Your task to perform on an android device: toggle pop-ups in chrome Image 0: 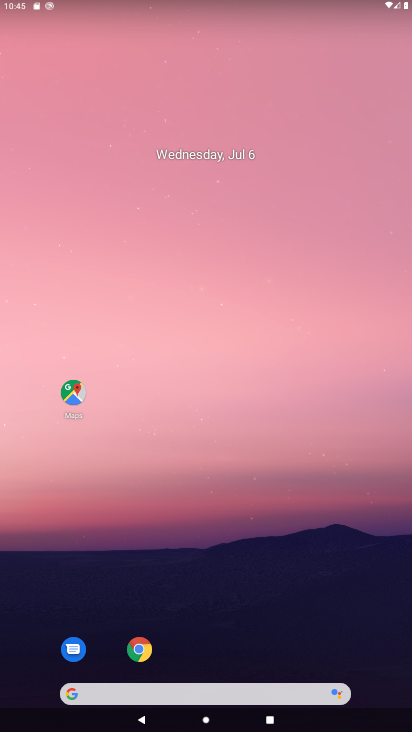
Step 0: drag from (302, 665) to (331, 6)
Your task to perform on an android device: toggle pop-ups in chrome Image 1: 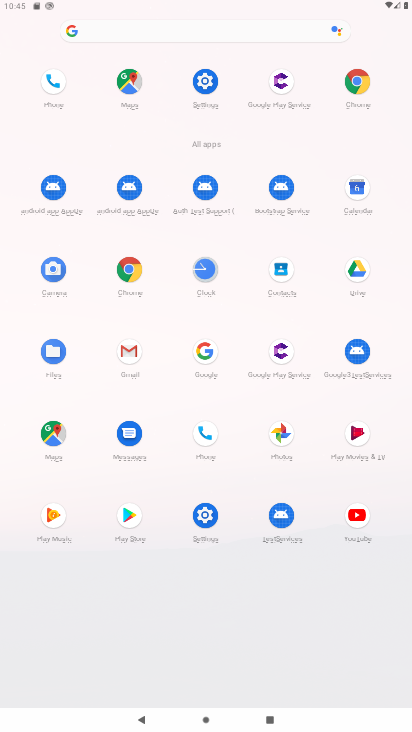
Step 1: click (136, 264)
Your task to perform on an android device: toggle pop-ups in chrome Image 2: 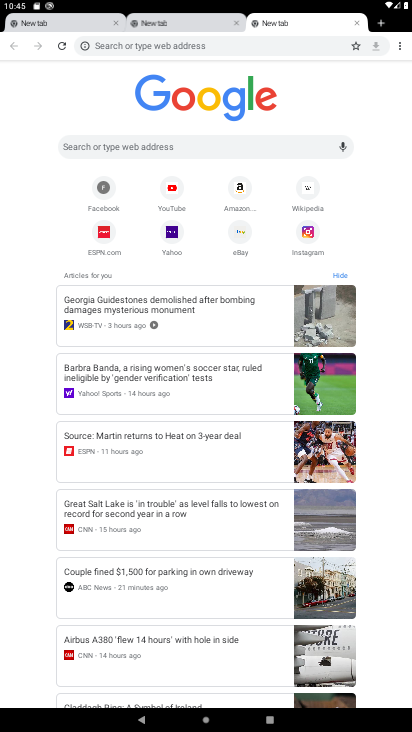
Step 2: click (392, 44)
Your task to perform on an android device: toggle pop-ups in chrome Image 3: 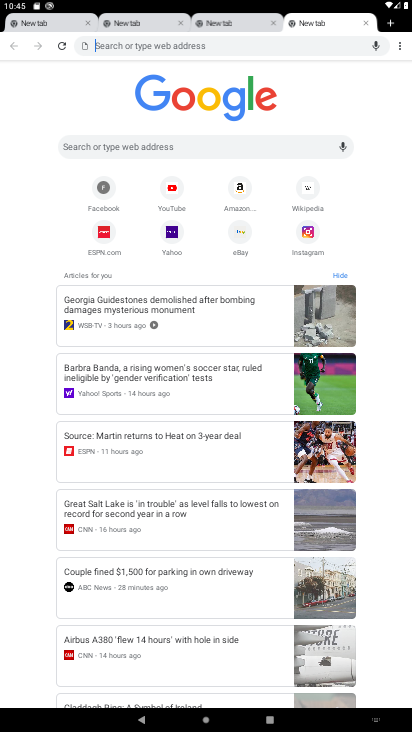
Step 3: drag from (394, 40) to (325, 213)
Your task to perform on an android device: toggle pop-ups in chrome Image 4: 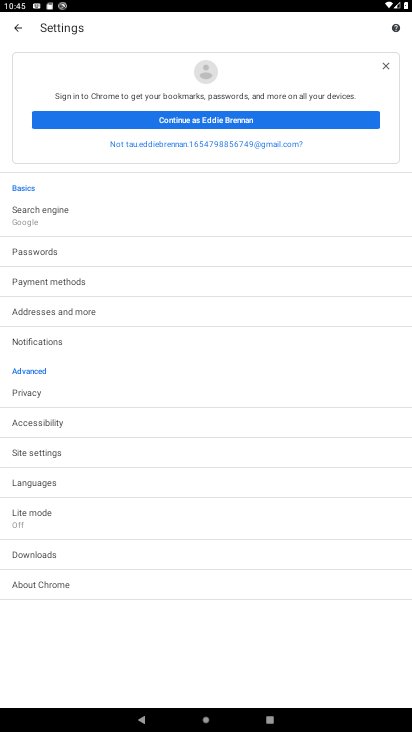
Step 4: click (51, 459)
Your task to perform on an android device: toggle pop-ups in chrome Image 5: 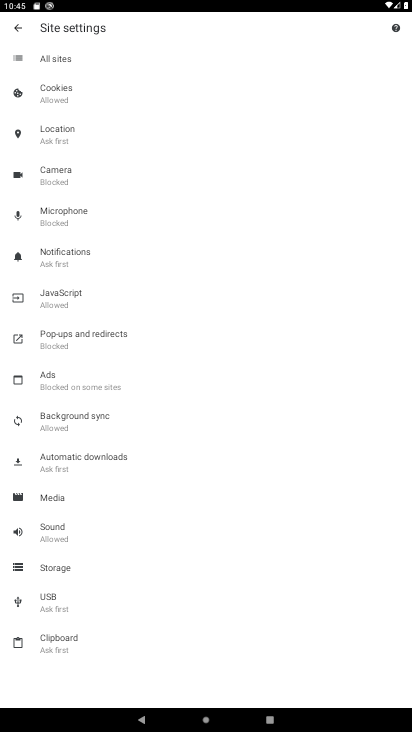
Step 5: click (105, 345)
Your task to perform on an android device: toggle pop-ups in chrome Image 6: 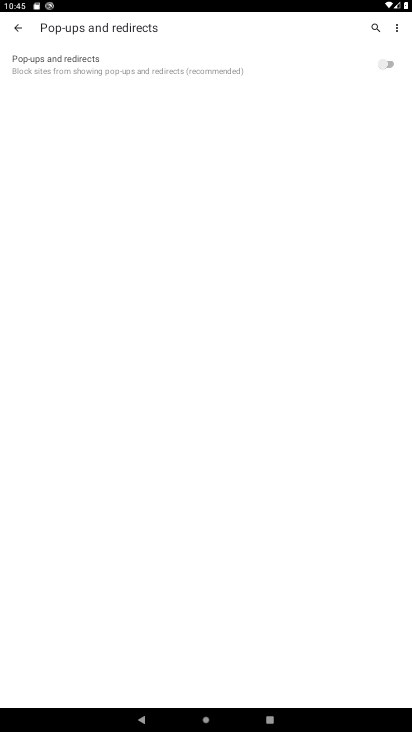
Step 6: click (388, 64)
Your task to perform on an android device: toggle pop-ups in chrome Image 7: 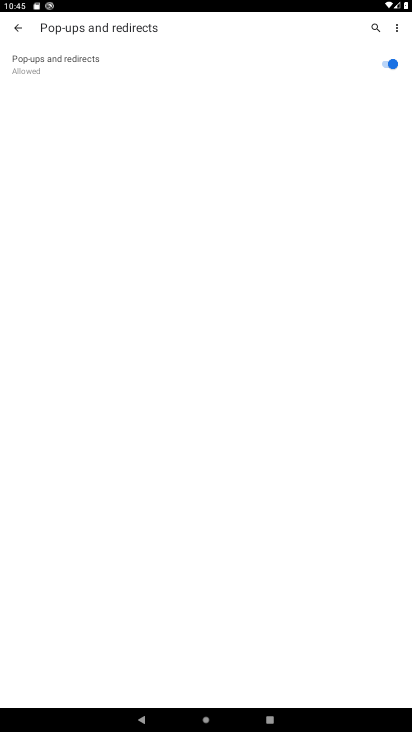
Step 7: task complete